Your task to perform on an android device: Open calendar and show me the fourth week of next month Image 0: 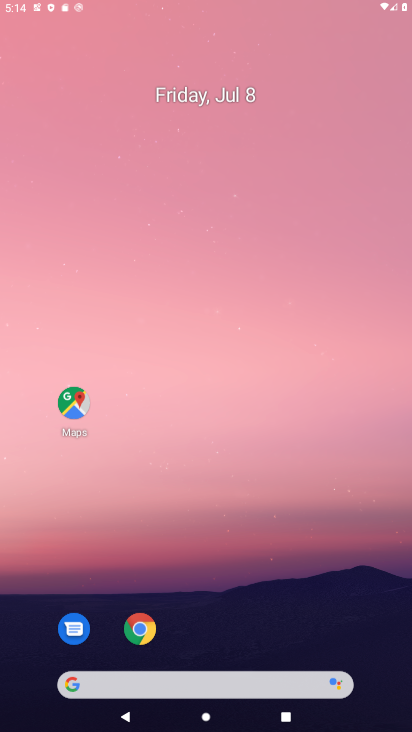
Step 0: press home button
Your task to perform on an android device: Open calendar and show me the fourth week of next month Image 1: 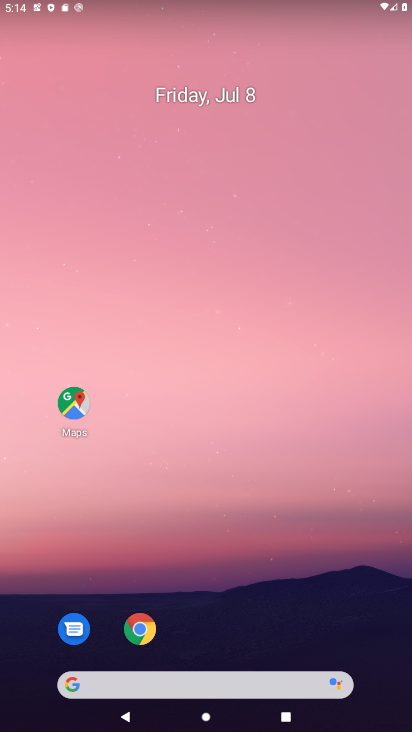
Step 1: drag from (295, 629) to (270, 212)
Your task to perform on an android device: Open calendar and show me the fourth week of next month Image 2: 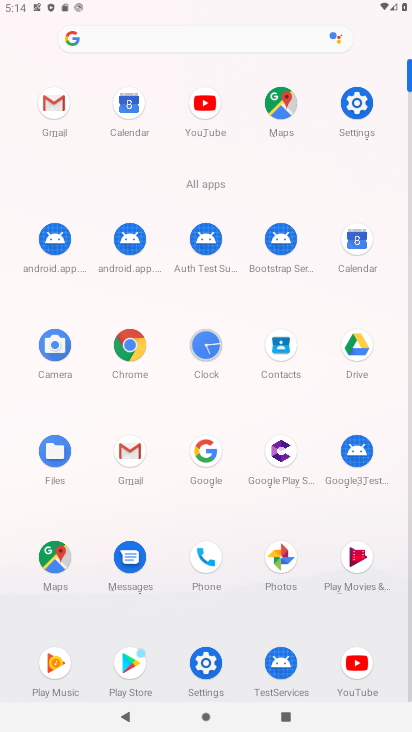
Step 2: click (357, 264)
Your task to perform on an android device: Open calendar and show me the fourth week of next month Image 3: 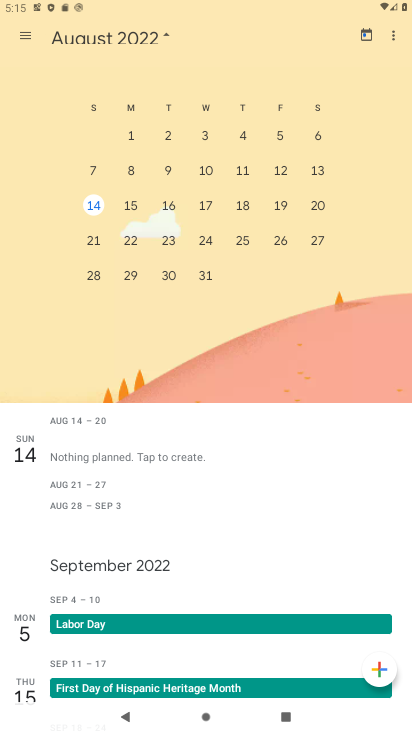
Step 3: click (250, 249)
Your task to perform on an android device: Open calendar and show me the fourth week of next month Image 4: 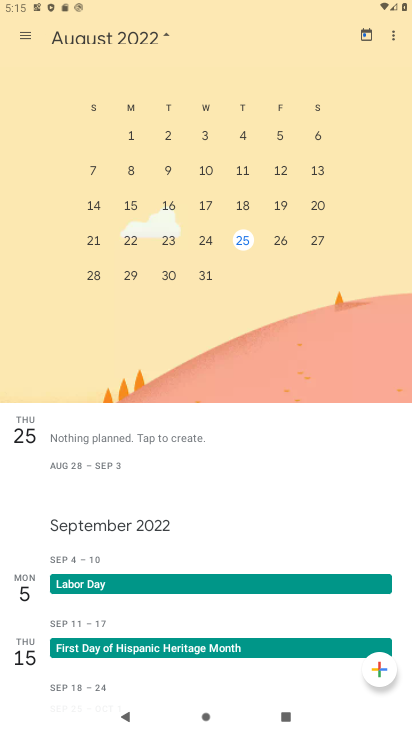
Step 4: click (284, 234)
Your task to perform on an android device: Open calendar and show me the fourth week of next month Image 5: 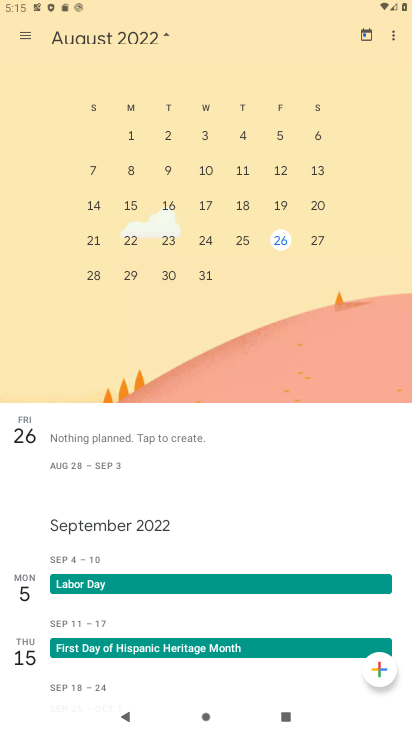
Step 5: click (315, 239)
Your task to perform on an android device: Open calendar and show me the fourth week of next month Image 6: 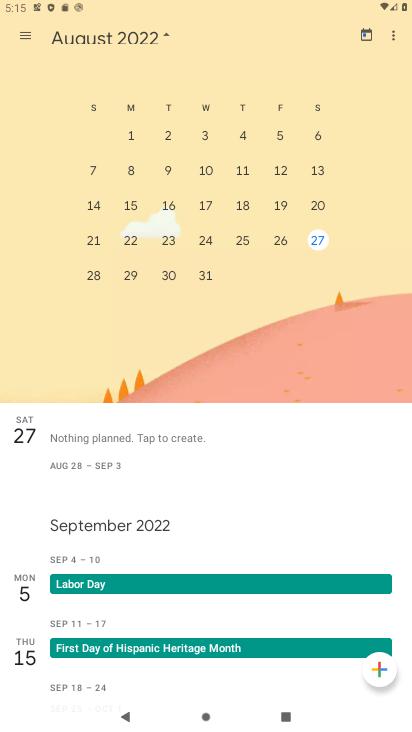
Step 6: click (92, 278)
Your task to perform on an android device: Open calendar and show me the fourth week of next month Image 7: 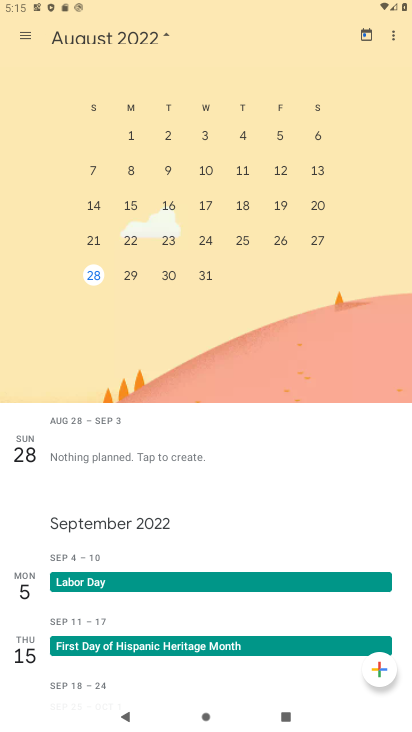
Step 7: click (129, 283)
Your task to perform on an android device: Open calendar and show me the fourth week of next month Image 8: 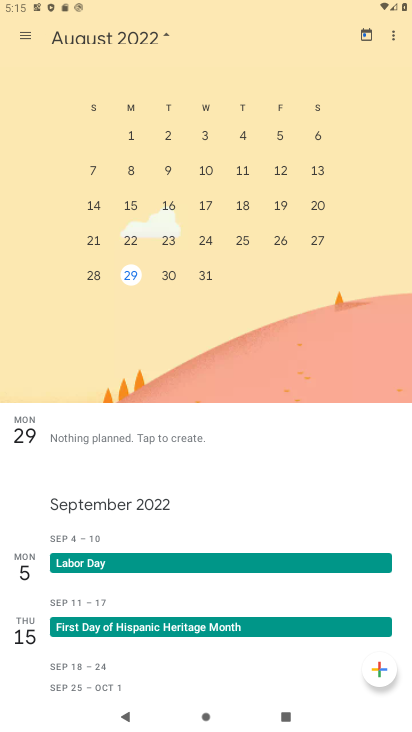
Step 8: click (168, 272)
Your task to perform on an android device: Open calendar and show me the fourth week of next month Image 9: 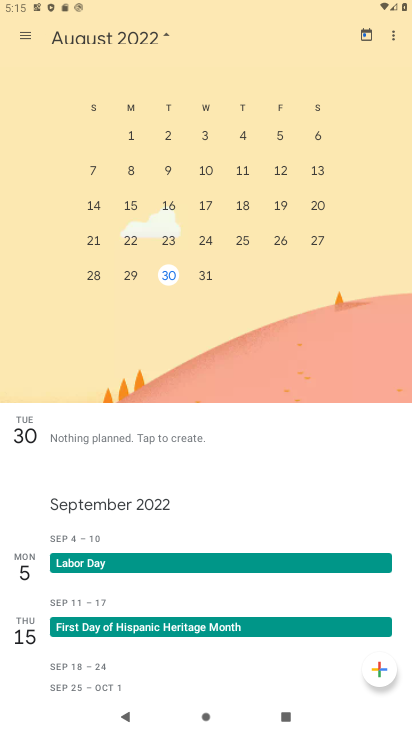
Step 9: click (206, 281)
Your task to perform on an android device: Open calendar and show me the fourth week of next month Image 10: 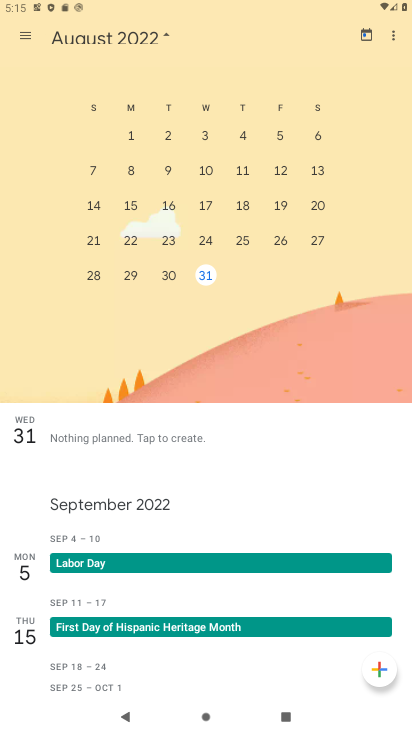
Step 10: task complete